Your task to perform on an android device: empty trash in google photos Image 0: 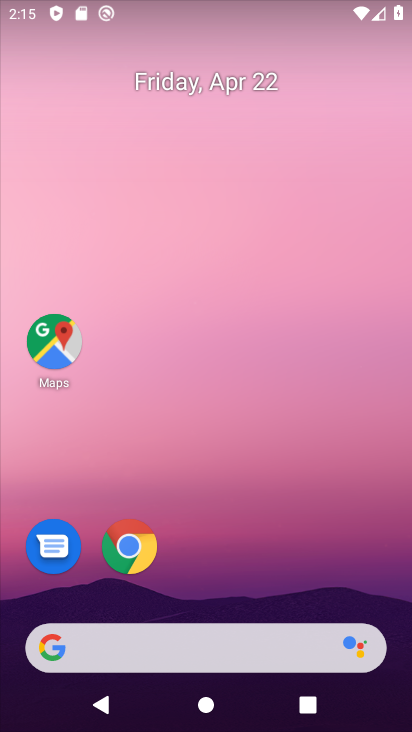
Step 0: drag from (237, 646) to (222, 130)
Your task to perform on an android device: empty trash in google photos Image 1: 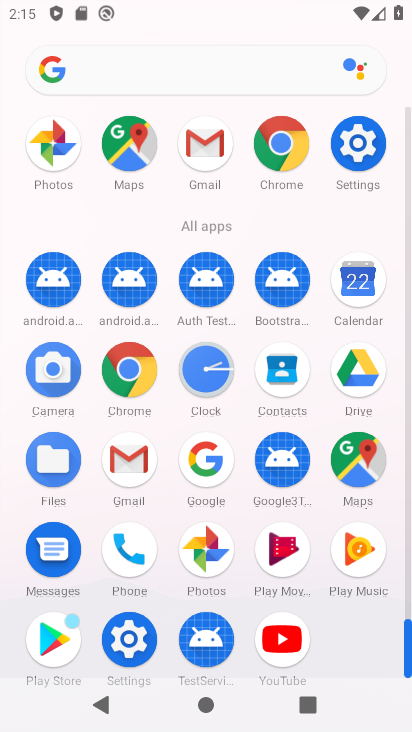
Step 1: click (212, 567)
Your task to perform on an android device: empty trash in google photos Image 2: 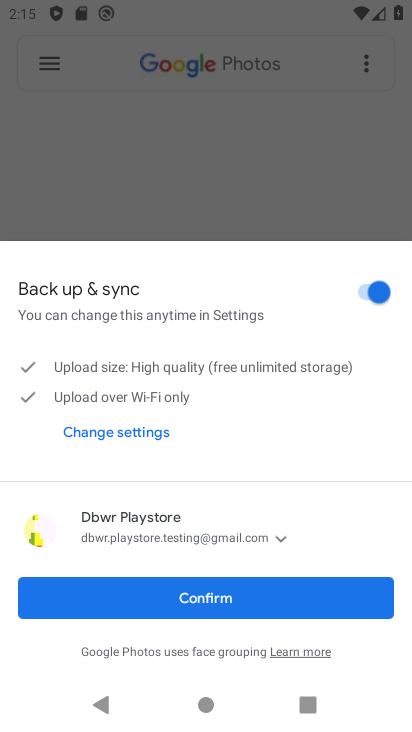
Step 2: click (222, 590)
Your task to perform on an android device: empty trash in google photos Image 3: 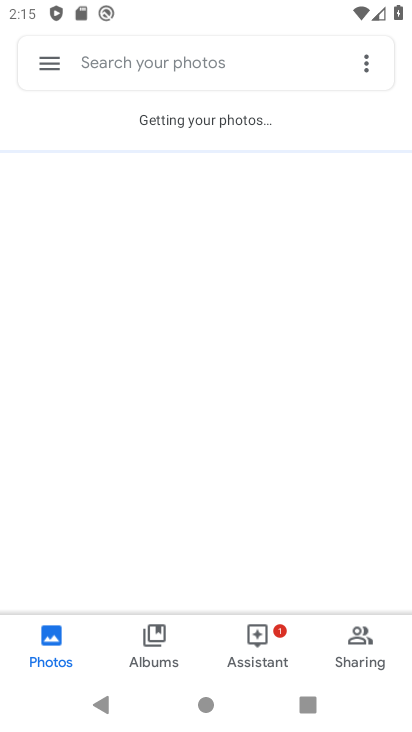
Step 3: click (48, 59)
Your task to perform on an android device: empty trash in google photos Image 4: 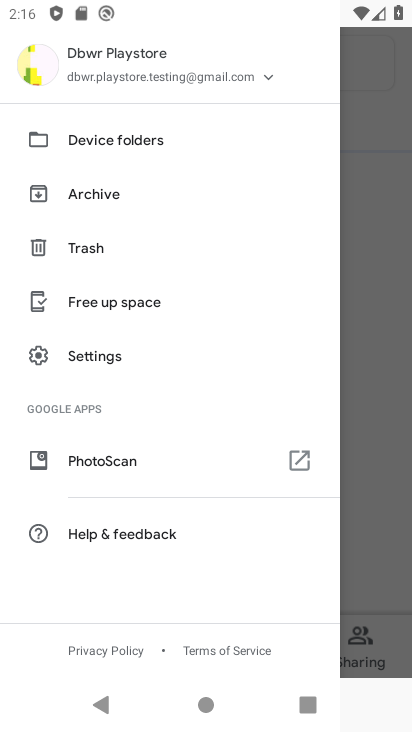
Step 4: click (116, 249)
Your task to perform on an android device: empty trash in google photos Image 5: 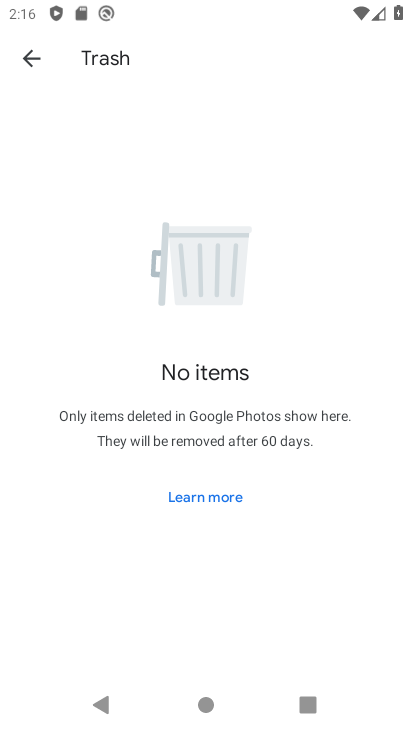
Step 5: task complete